Your task to perform on an android device: turn off smart reply in the gmail app Image 0: 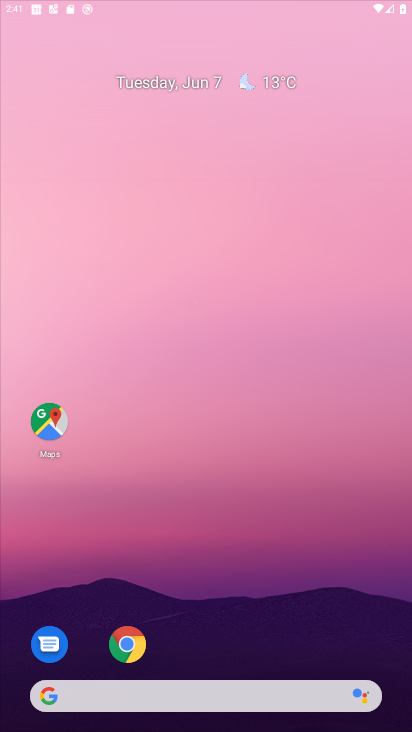
Step 0: press home button
Your task to perform on an android device: turn off smart reply in the gmail app Image 1: 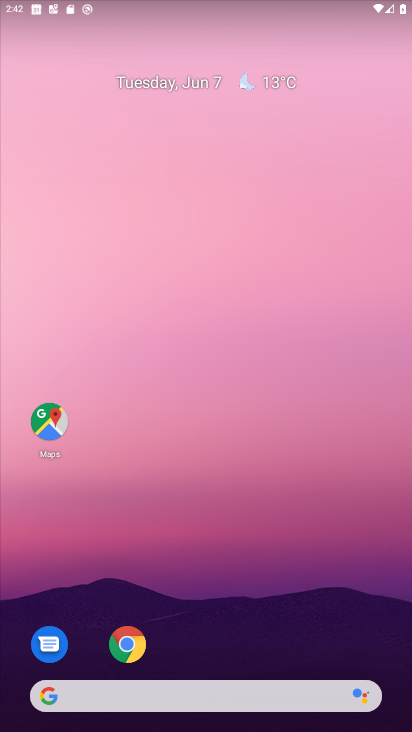
Step 1: drag from (226, 645) to (242, 0)
Your task to perform on an android device: turn off smart reply in the gmail app Image 2: 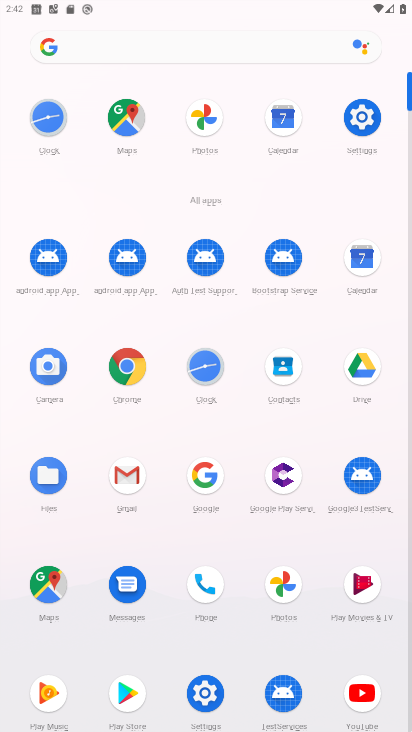
Step 2: click (129, 470)
Your task to perform on an android device: turn off smart reply in the gmail app Image 3: 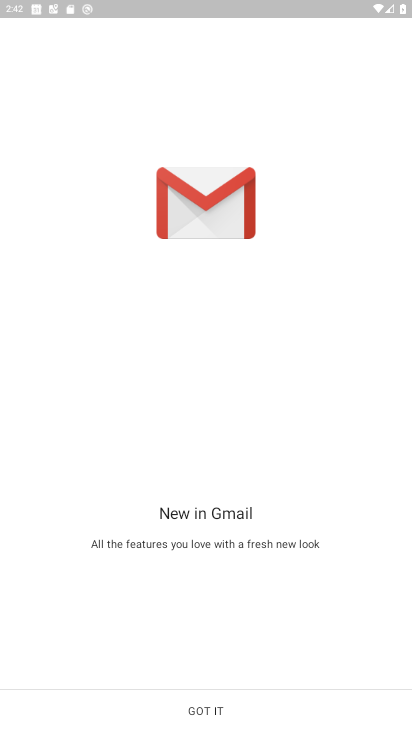
Step 3: click (208, 708)
Your task to perform on an android device: turn off smart reply in the gmail app Image 4: 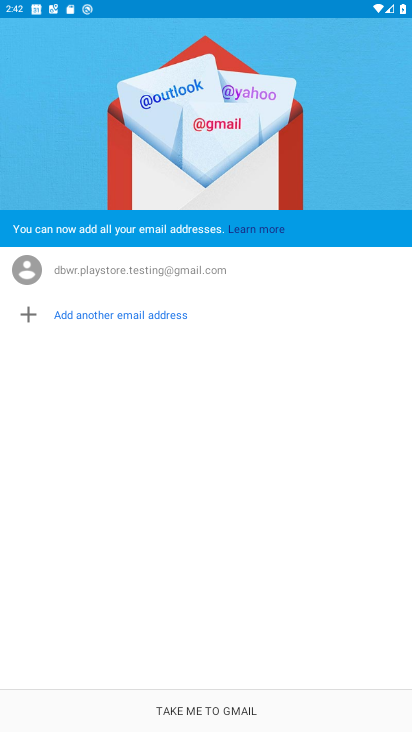
Step 4: click (207, 709)
Your task to perform on an android device: turn off smart reply in the gmail app Image 5: 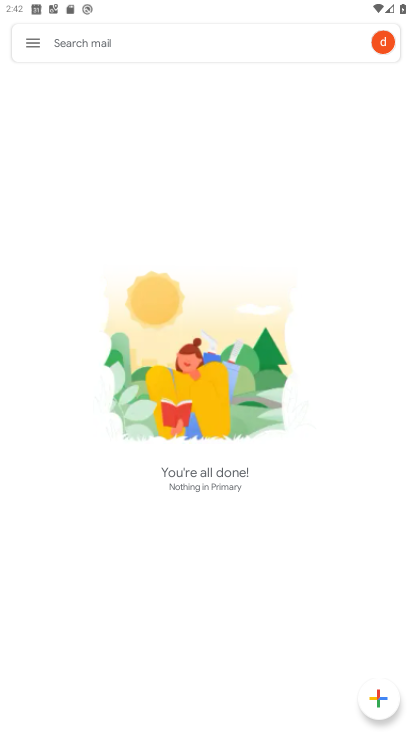
Step 5: click (25, 35)
Your task to perform on an android device: turn off smart reply in the gmail app Image 6: 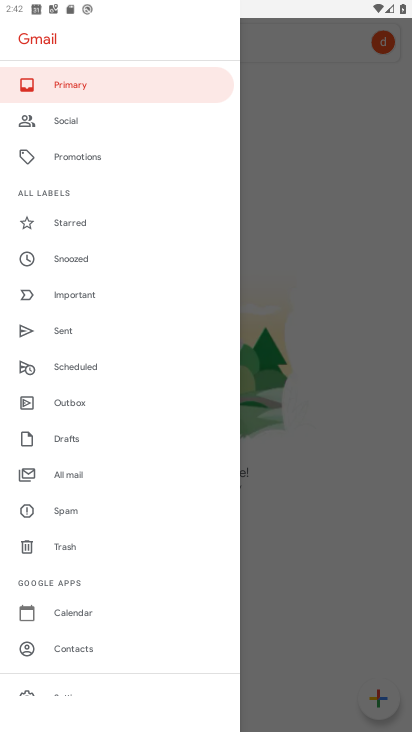
Step 6: drag from (76, 644) to (82, 268)
Your task to perform on an android device: turn off smart reply in the gmail app Image 7: 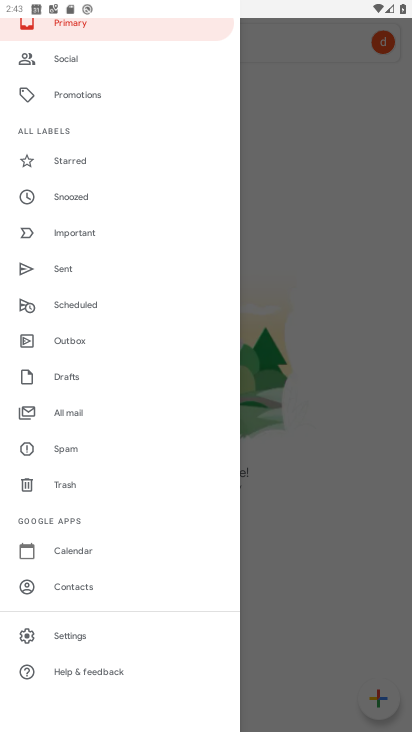
Step 7: click (94, 631)
Your task to perform on an android device: turn off smart reply in the gmail app Image 8: 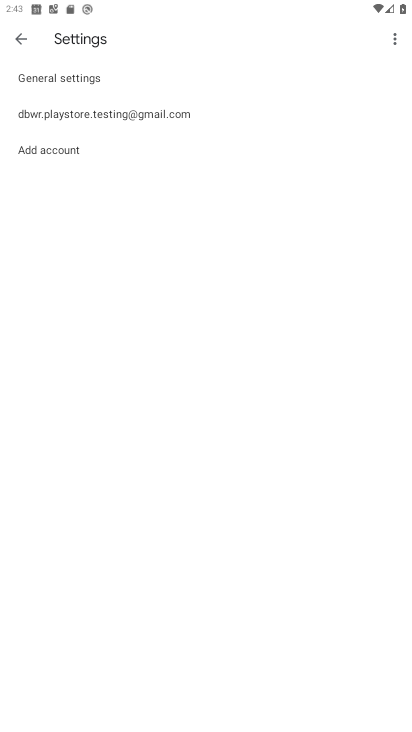
Step 8: click (183, 115)
Your task to perform on an android device: turn off smart reply in the gmail app Image 9: 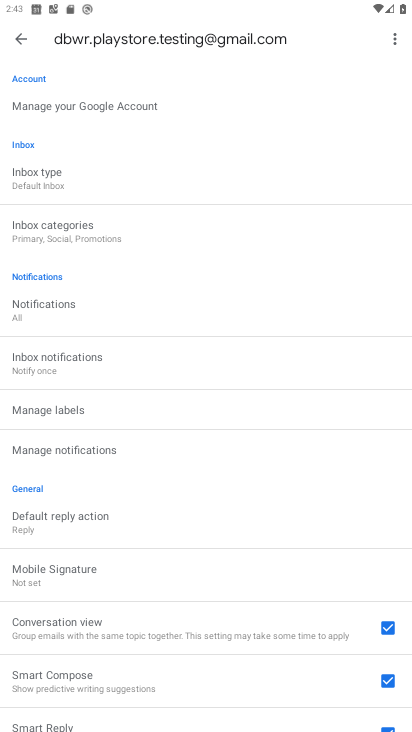
Step 9: drag from (169, 667) to (182, 421)
Your task to perform on an android device: turn off smart reply in the gmail app Image 10: 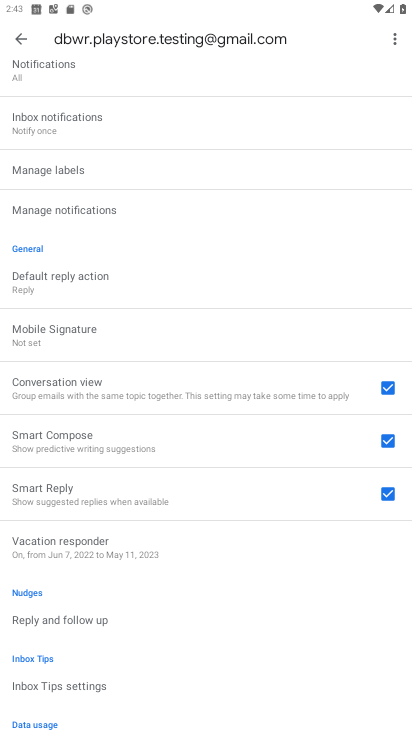
Step 10: click (385, 490)
Your task to perform on an android device: turn off smart reply in the gmail app Image 11: 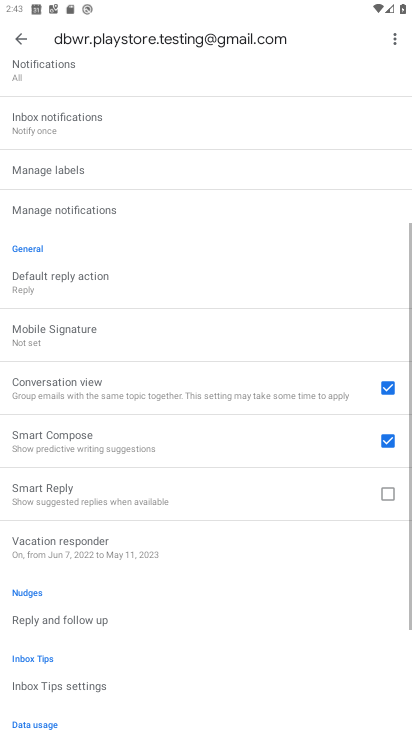
Step 11: task complete